Your task to perform on an android device: empty trash in the gmail app Image 0: 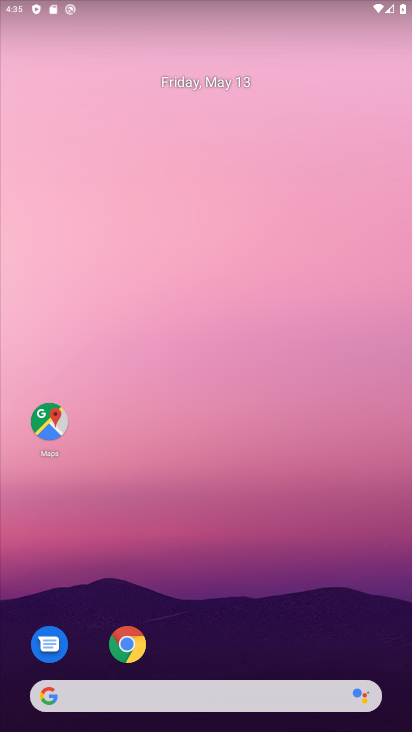
Step 0: drag from (216, 570) to (263, 135)
Your task to perform on an android device: empty trash in the gmail app Image 1: 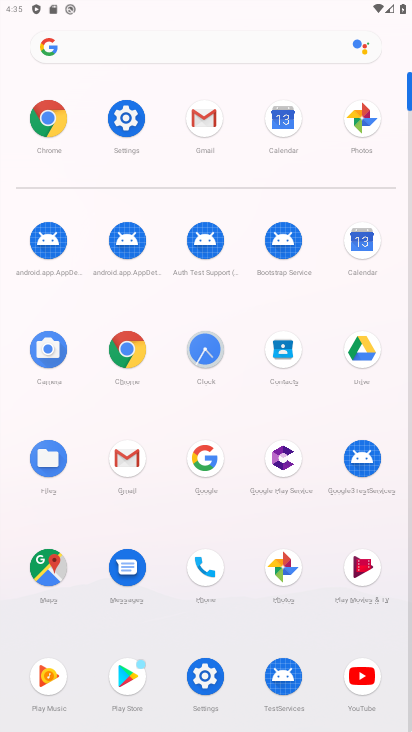
Step 1: click (211, 123)
Your task to perform on an android device: empty trash in the gmail app Image 2: 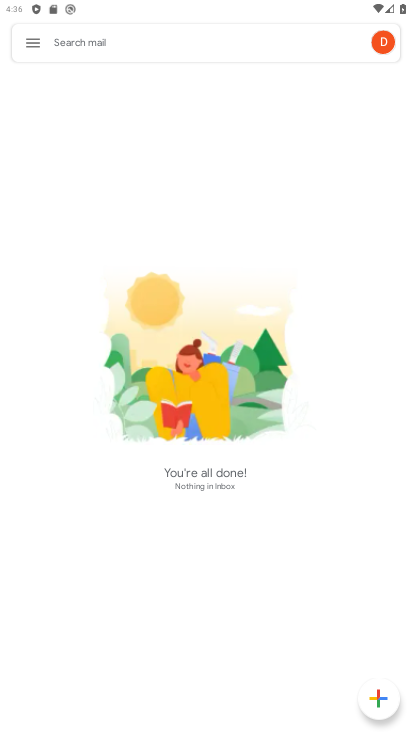
Step 2: click (36, 47)
Your task to perform on an android device: empty trash in the gmail app Image 3: 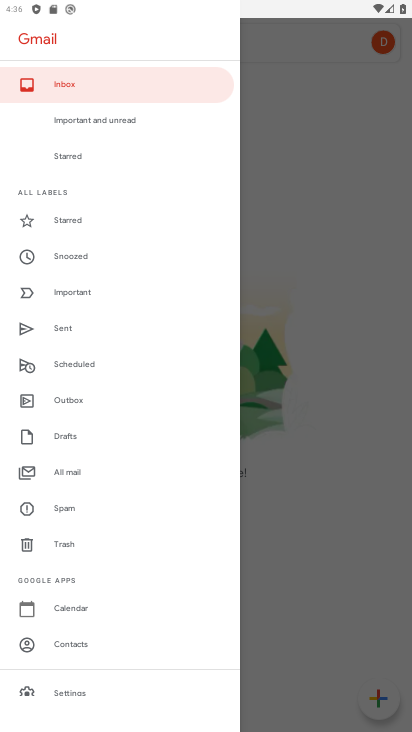
Step 3: click (65, 542)
Your task to perform on an android device: empty trash in the gmail app Image 4: 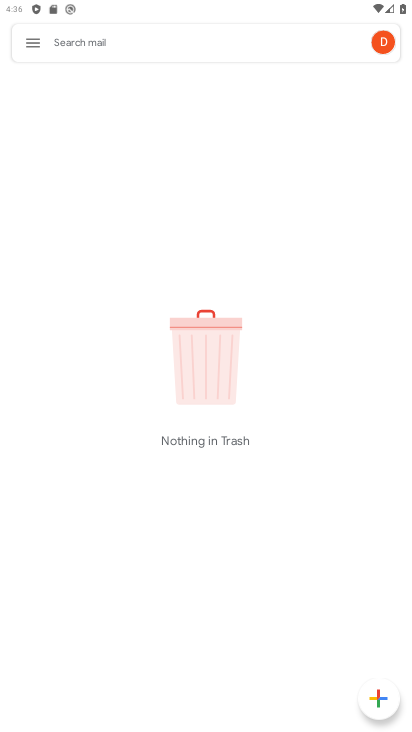
Step 4: task complete